Your task to perform on an android device: Go to Yahoo.com Image 0: 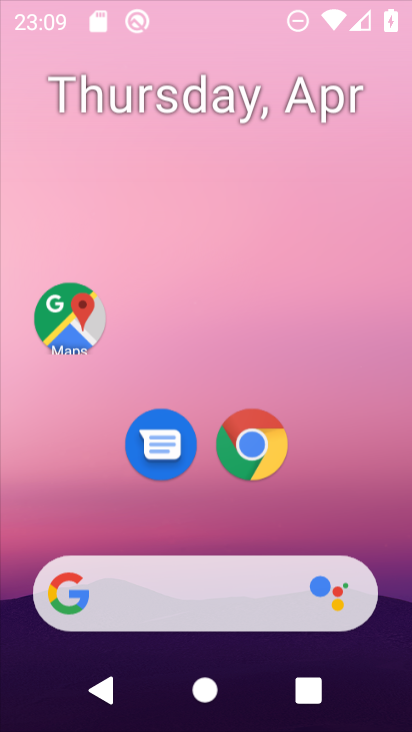
Step 0: click (236, 236)
Your task to perform on an android device: Go to Yahoo.com Image 1: 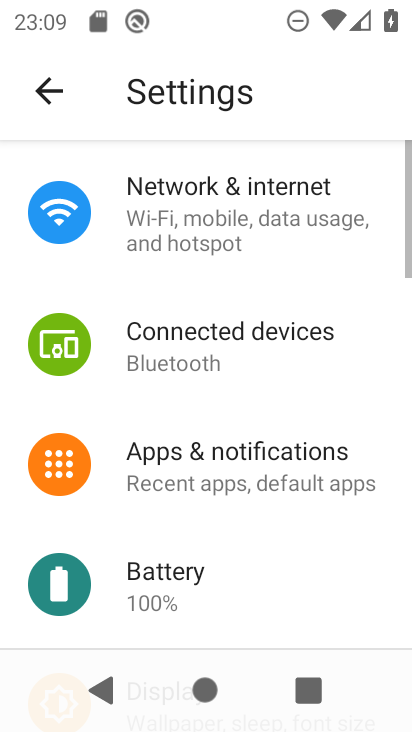
Step 1: drag from (211, 511) to (250, 181)
Your task to perform on an android device: Go to Yahoo.com Image 2: 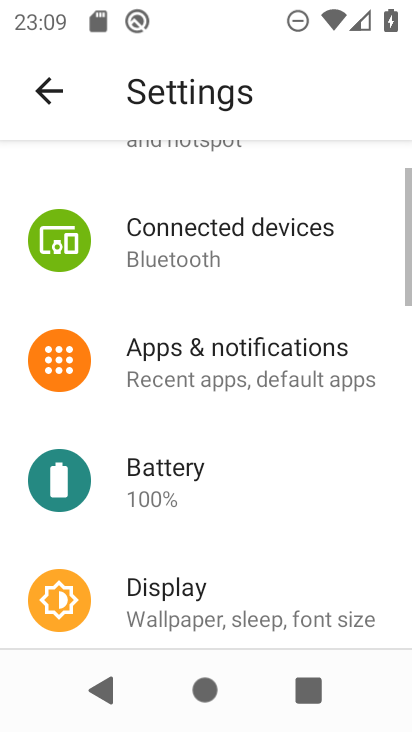
Step 2: drag from (219, 469) to (248, 170)
Your task to perform on an android device: Go to Yahoo.com Image 3: 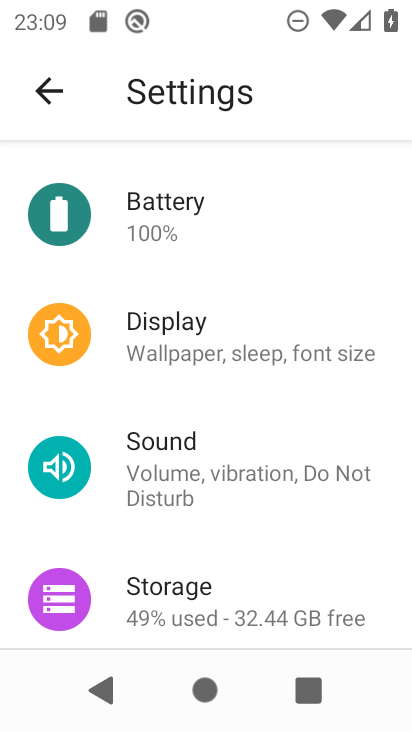
Step 3: drag from (203, 511) to (232, 229)
Your task to perform on an android device: Go to Yahoo.com Image 4: 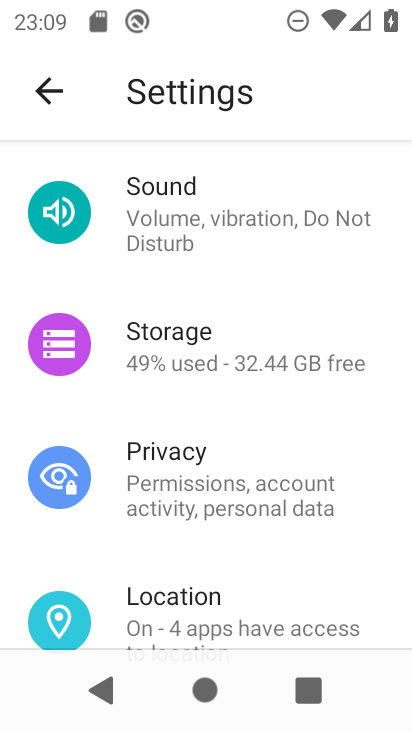
Step 4: drag from (229, 604) to (253, 309)
Your task to perform on an android device: Go to Yahoo.com Image 5: 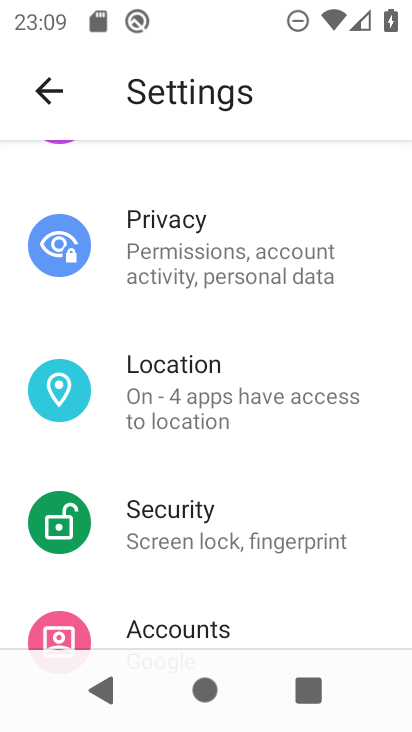
Step 5: drag from (160, 196) to (402, 670)
Your task to perform on an android device: Go to Yahoo.com Image 6: 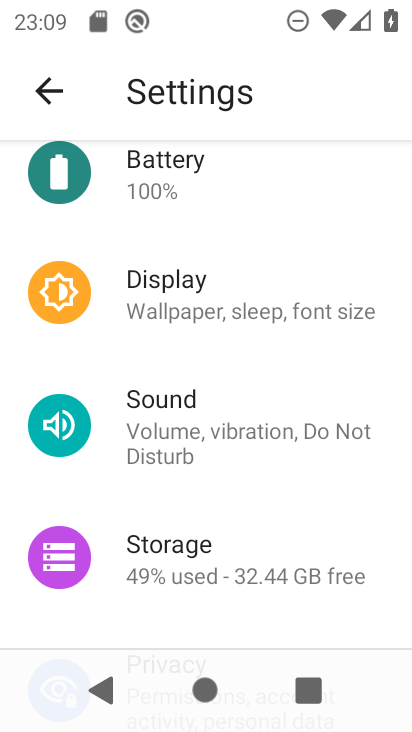
Step 6: press home button
Your task to perform on an android device: Go to Yahoo.com Image 7: 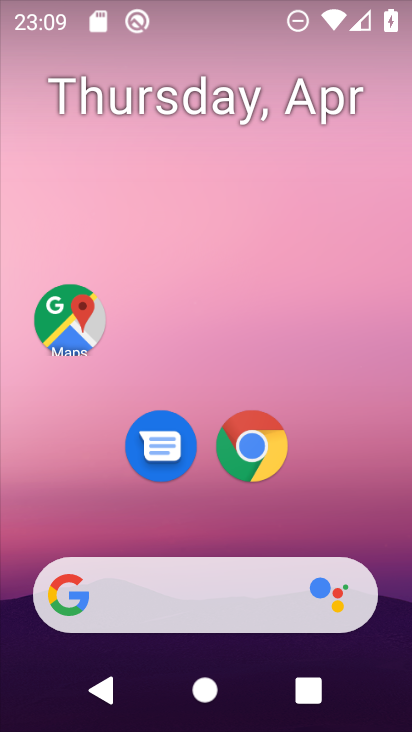
Step 7: drag from (191, 556) to (238, 205)
Your task to perform on an android device: Go to Yahoo.com Image 8: 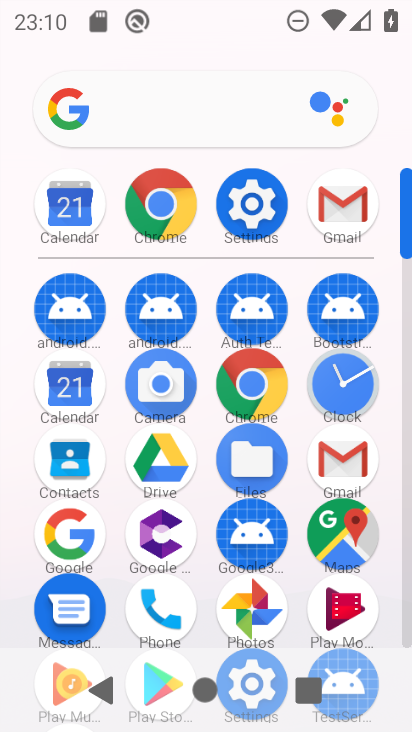
Step 8: click (160, 201)
Your task to perform on an android device: Go to Yahoo.com Image 9: 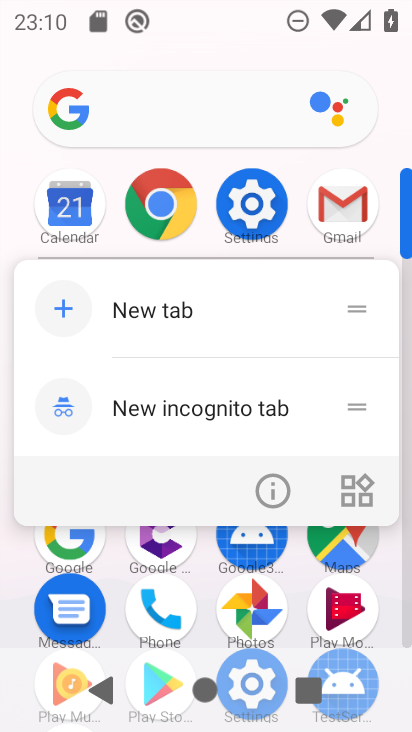
Step 9: click (259, 494)
Your task to perform on an android device: Go to Yahoo.com Image 10: 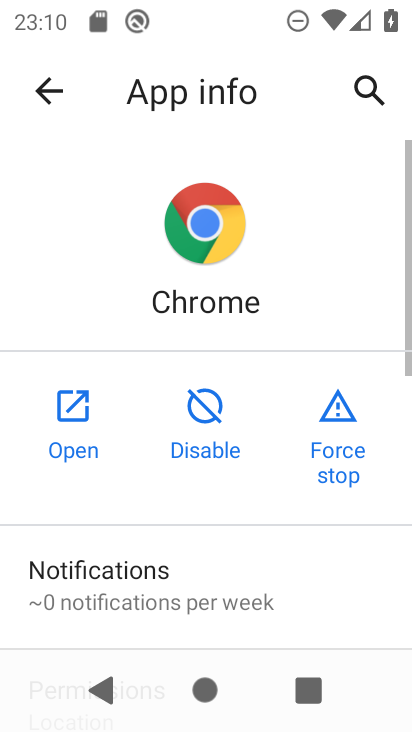
Step 10: click (73, 423)
Your task to perform on an android device: Go to Yahoo.com Image 11: 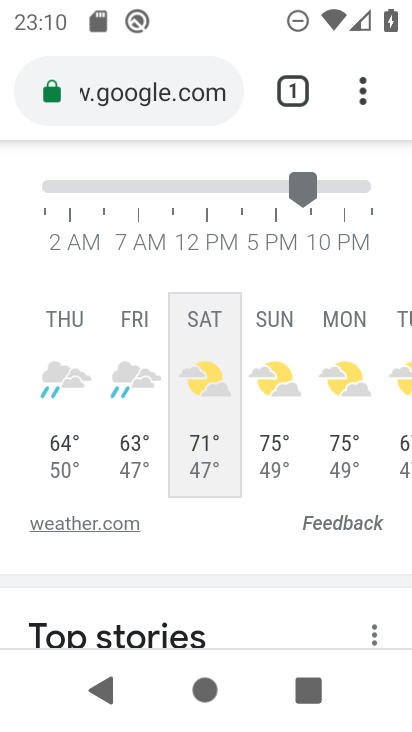
Step 11: drag from (157, 378) to (175, 199)
Your task to perform on an android device: Go to Yahoo.com Image 12: 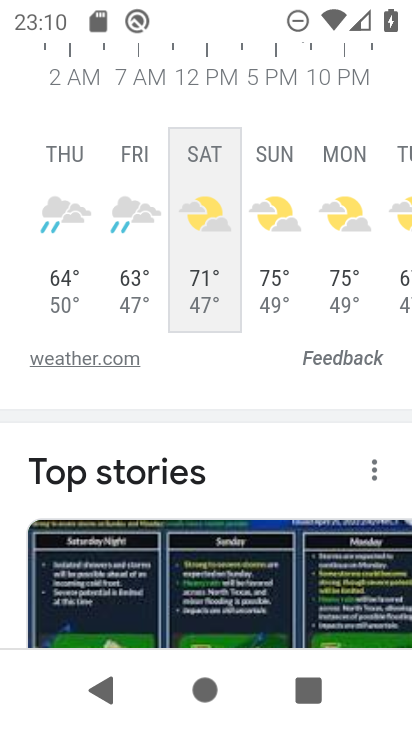
Step 12: drag from (200, 419) to (280, 147)
Your task to perform on an android device: Go to Yahoo.com Image 13: 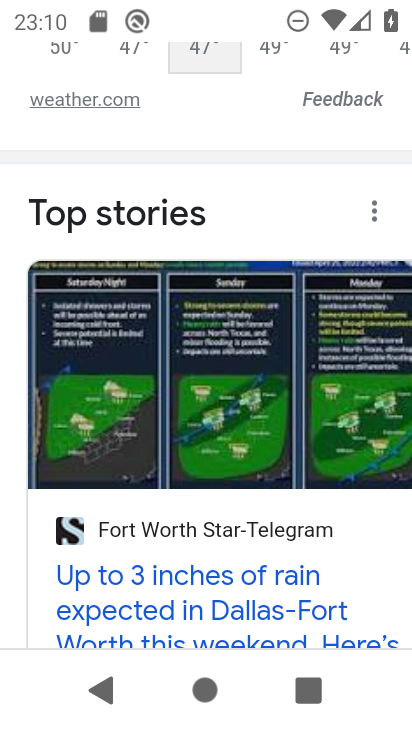
Step 13: drag from (235, 117) to (342, 501)
Your task to perform on an android device: Go to Yahoo.com Image 14: 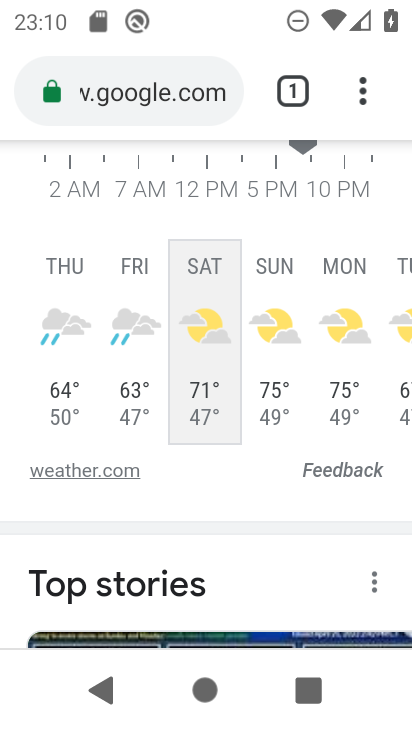
Step 14: click (198, 99)
Your task to perform on an android device: Go to Yahoo.com Image 15: 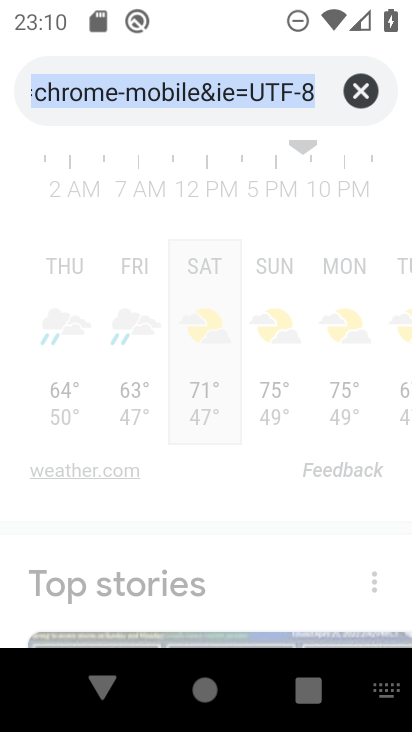
Step 15: click (368, 89)
Your task to perform on an android device: Go to Yahoo.com Image 16: 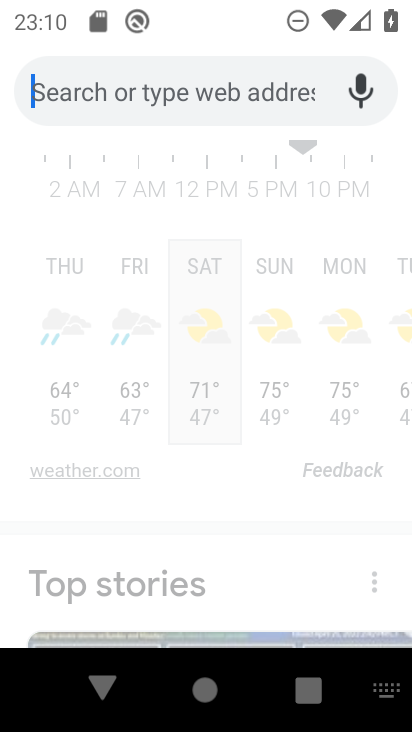
Step 16: type "yahoo.com"
Your task to perform on an android device: Go to Yahoo.com Image 17: 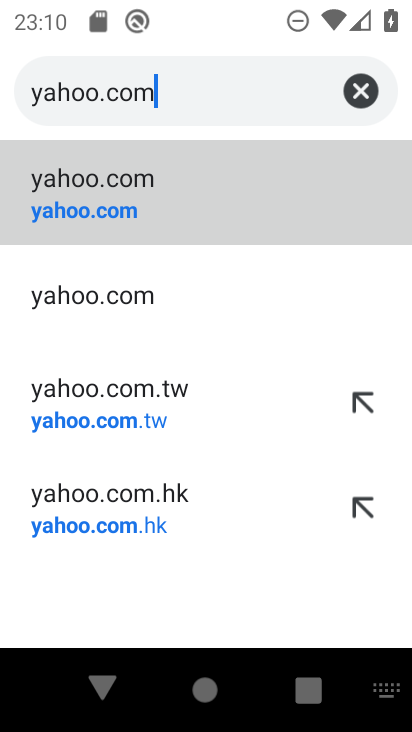
Step 17: click (101, 178)
Your task to perform on an android device: Go to Yahoo.com Image 18: 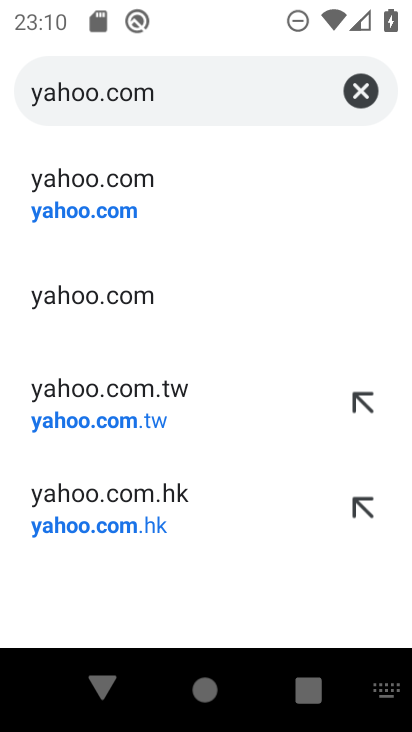
Step 18: drag from (144, 445) to (260, 64)
Your task to perform on an android device: Go to Yahoo.com Image 19: 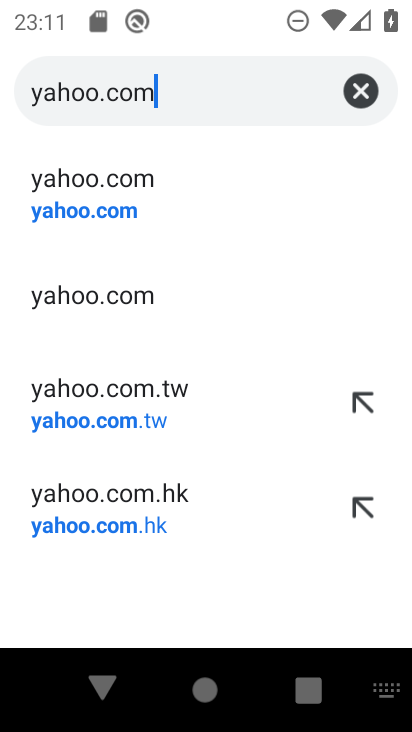
Step 19: click (107, 182)
Your task to perform on an android device: Go to Yahoo.com Image 20: 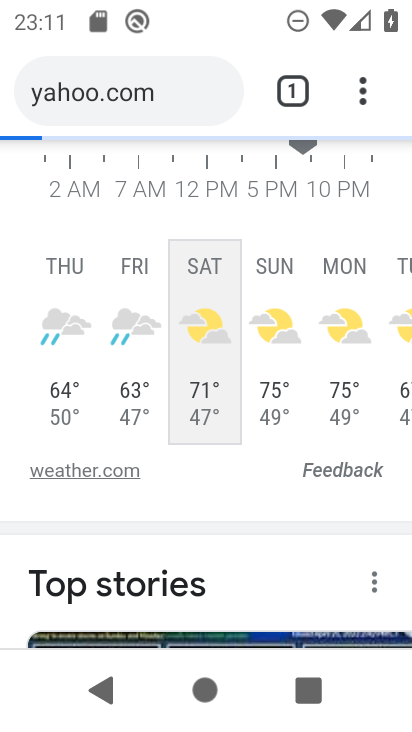
Step 20: click (106, 182)
Your task to perform on an android device: Go to Yahoo.com Image 21: 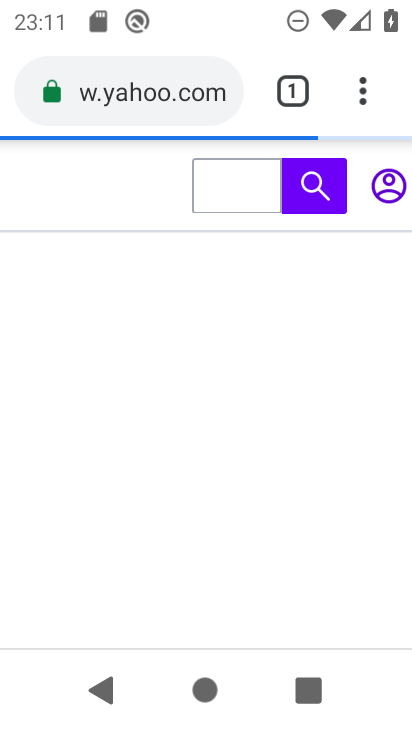
Step 21: task complete